Your task to perform on an android device: Open calendar and show me the second week of next month Image 0: 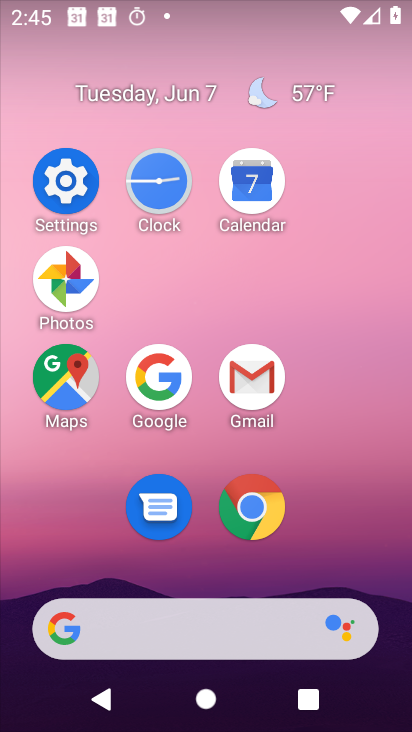
Step 0: click (248, 175)
Your task to perform on an android device: Open calendar and show me the second week of next month Image 1: 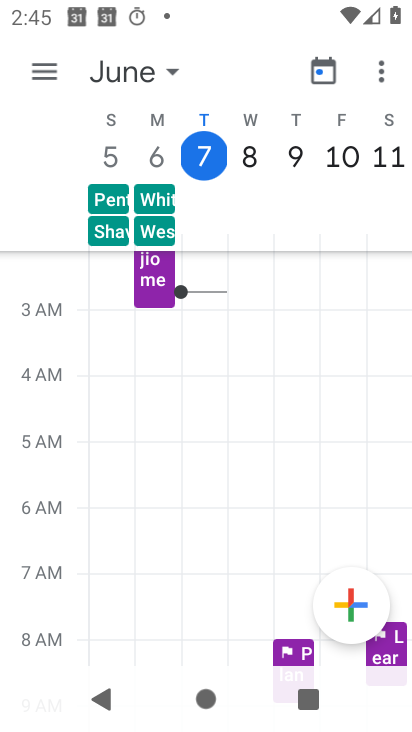
Step 1: click (142, 62)
Your task to perform on an android device: Open calendar and show me the second week of next month Image 2: 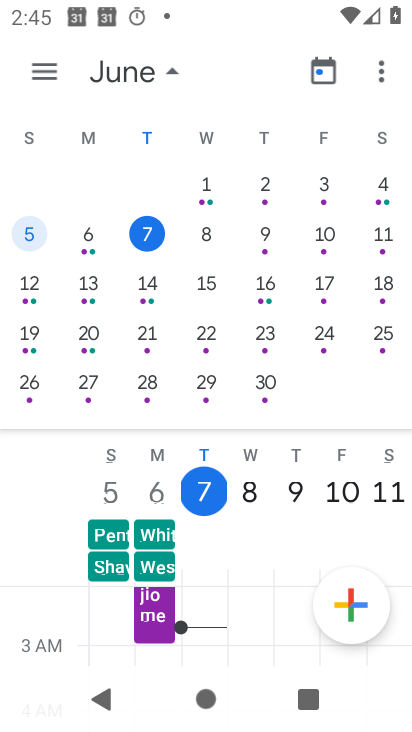
Step 2: drag from (385, 311) to (0, 264)
Your task to perform on an android device: Open calendar and show me the second week of next month Image 3: 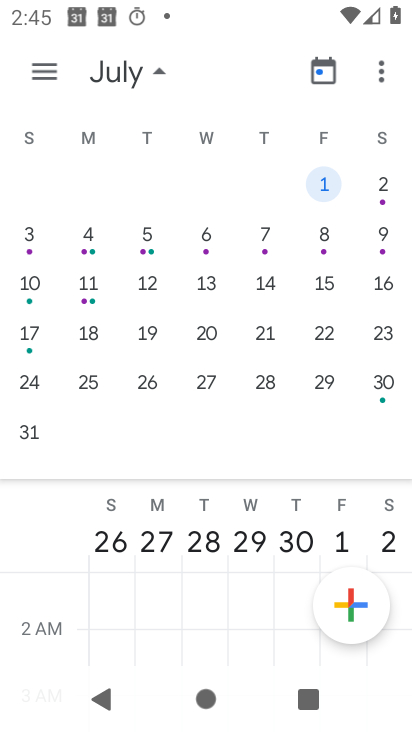
Step 3: click (57, 70)
Your task to perform on an android device: Open calendar and show me the second week of next month Image 4: 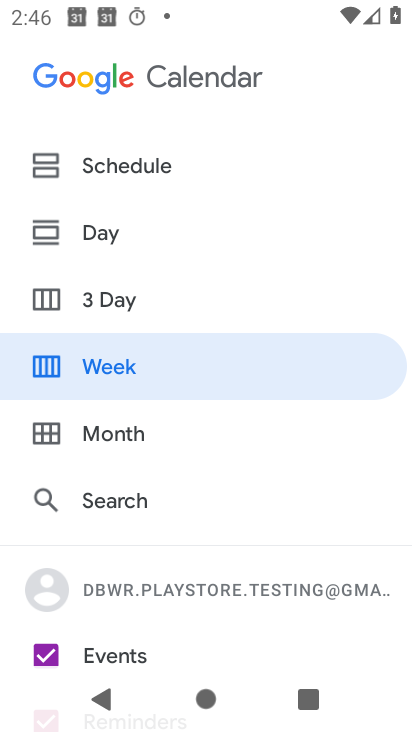
Step 4: click (190, 359)
Your task to perform on an android device: Open calendar and show me the second week of next month Image 5: 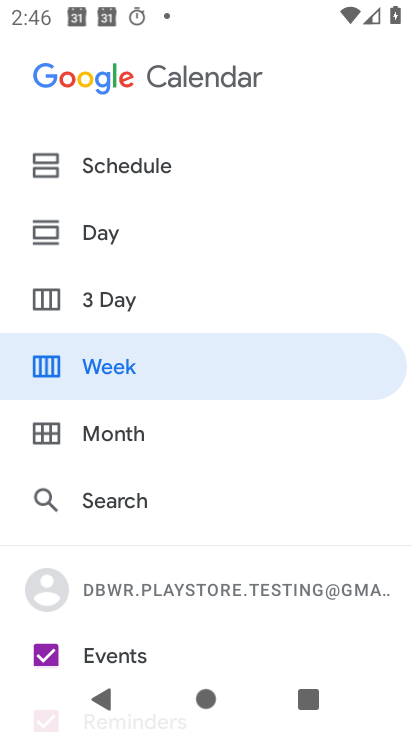
Step 5: click (259, 383)
Your task to perform on an android device: Open calendar and show me the second week of next month Image 6: 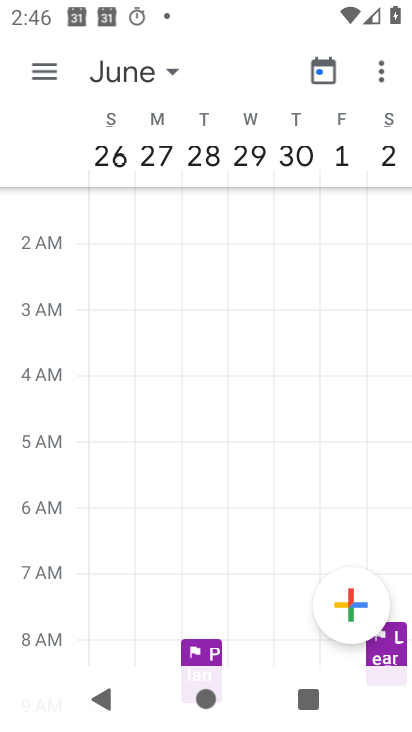
Step 6: task complete